Your task to perform on an android device: Go to Android settings Image 0: 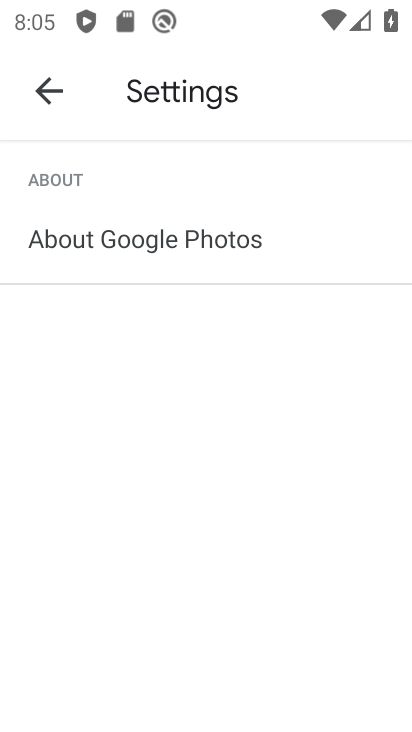
Step 0: press home button
Your task to perform on an android device: Go to Android settings Image 1: 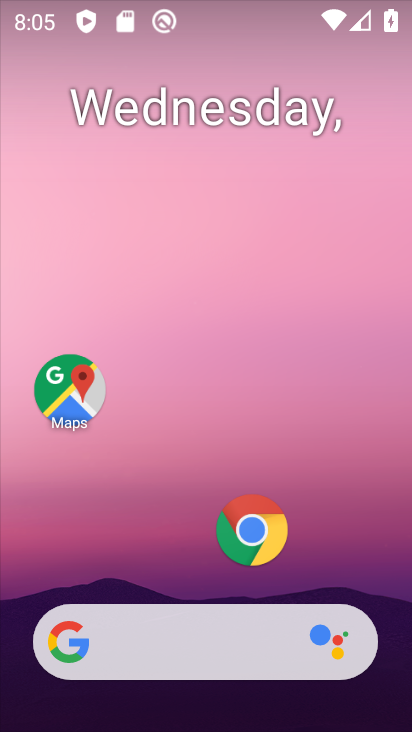
Step 1: click (250, 531)
Your task to perform on an android device: Go to Android settings Image 2: 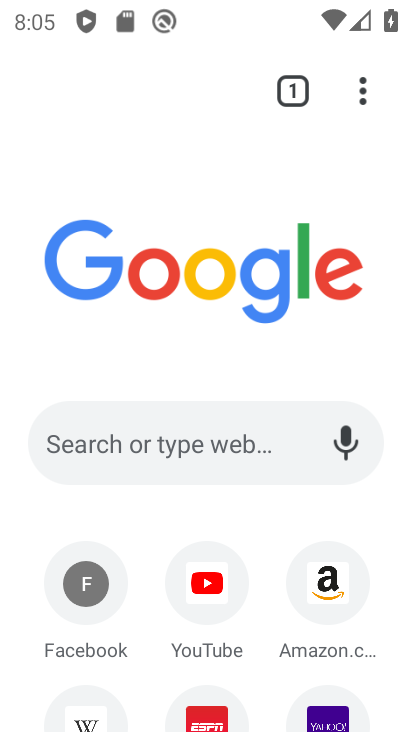
Step 2: drag from (365, 85) to (127, 558)
Your task to perform on an android device: Go to Android settings Image 3: 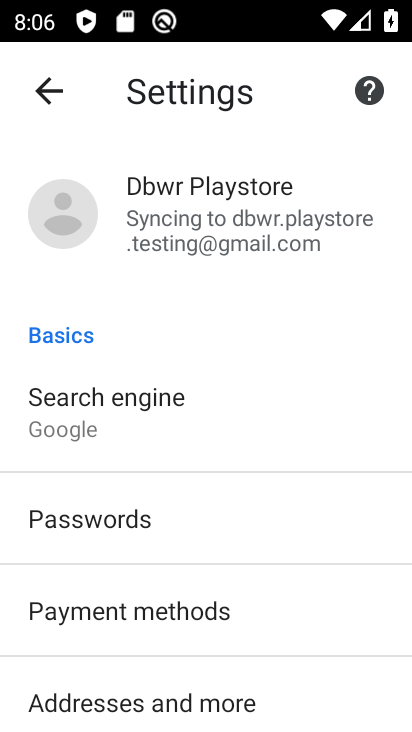
Step 3: drag from (156, 672) to (219, 446)
Your task to perform on an android device: Go to Android settings Image 4: 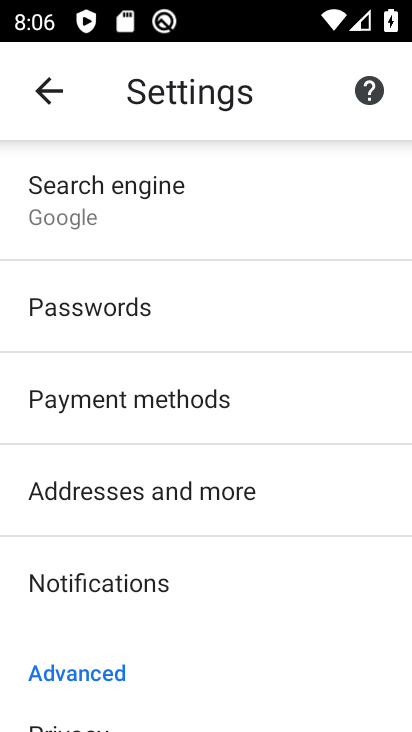
Step 4: drag from (140, 636) to (240, 86)
Your task to perform on an android device: Go to Android settings Image 5: 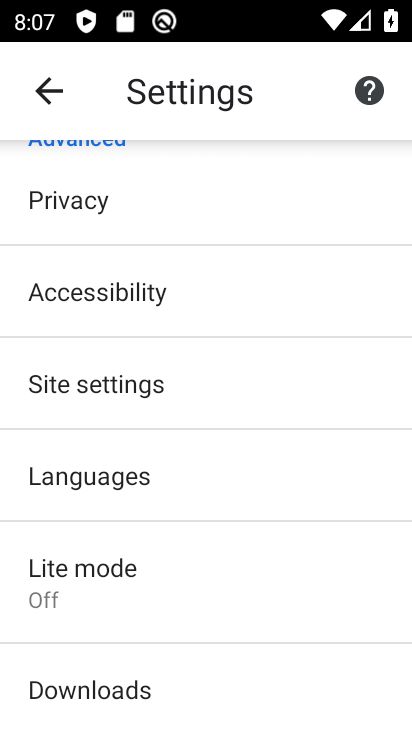
Step 5: press home button
Your task to perform on an android device: Go to Android settings Image 6: 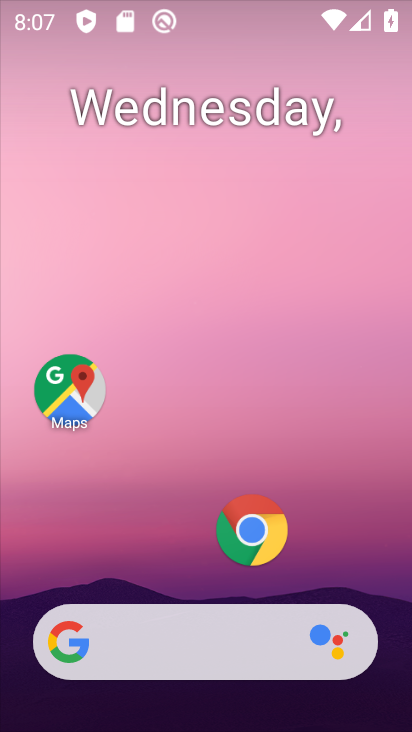
Step 6: drag from (121, 552) to (202, 62)
Your task to perform on an android device: Go to Android settings Image 7: 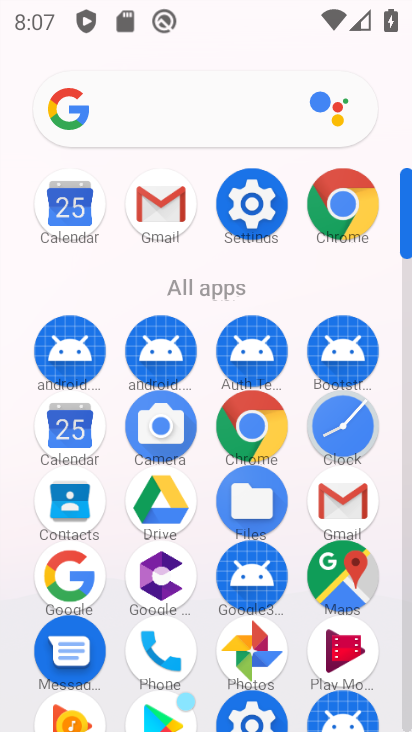
Step 7: click (241, 192)
Your task to perform on an android device: Go to Android settings Image 8: 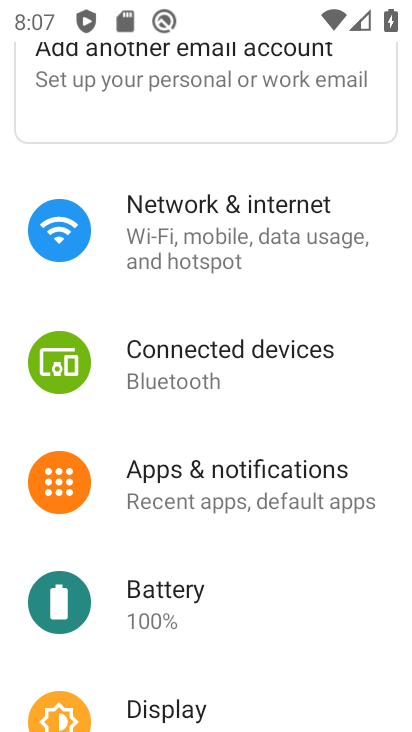
Step 8: drag from (236, 643) to (295, 126)
Your task to perform on an android device: Go to Android settings Image 9: 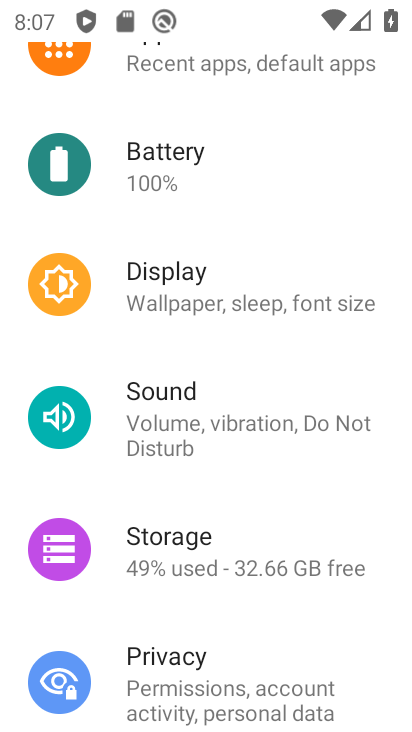
Step 9: drag from (248, 640) to (303, 134)
Your task to perform on an android device: Go to Android settings Image 10: 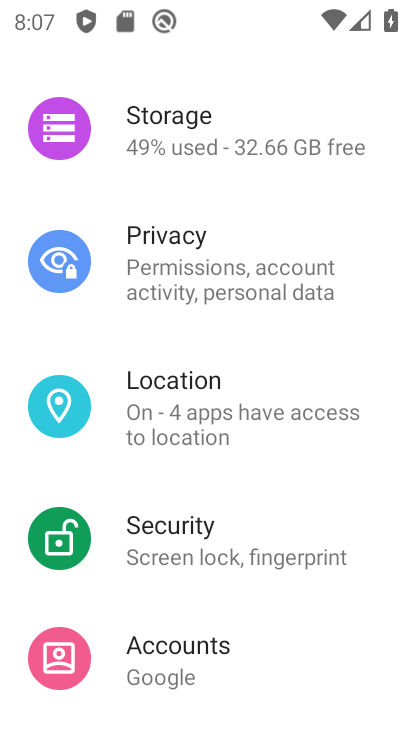
Step 10: drag from (147, 651) to (287, 28)
Your task to perform on an android device: Go to Android settings Image 11: 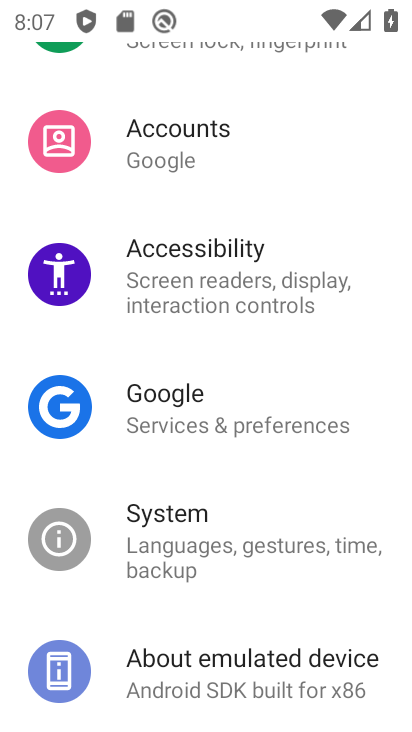
Step 11: click (229, 691)
Your task to perform on an android device: Go to Android settings Image 12: 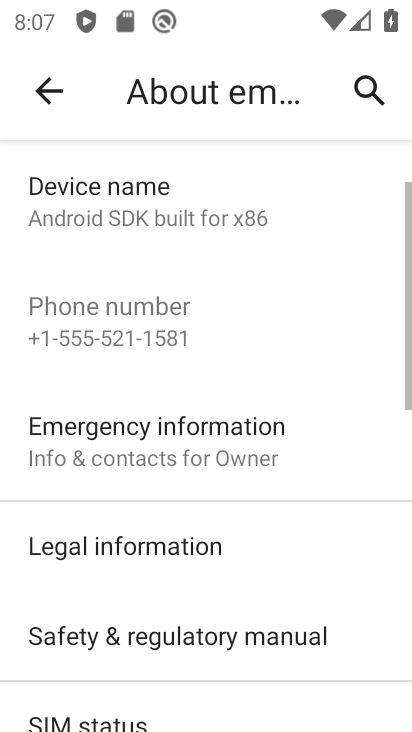
Step 12: task complete